Your task to perform on an android device: manage bookmarks in the chrome app Image 0: 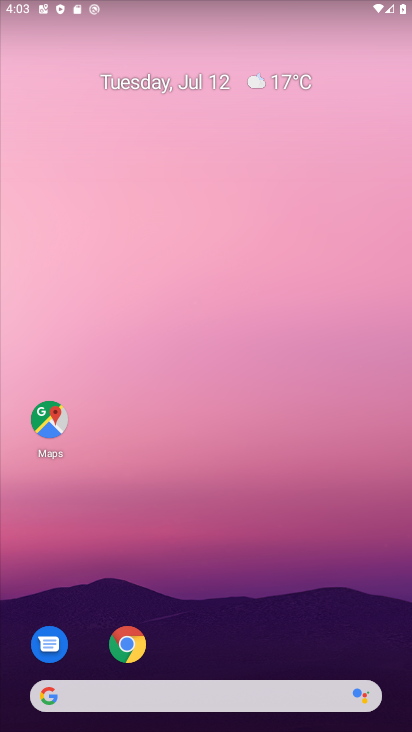
Step 0: drag from (261, 653) to (231, 55)
Your task to perform on an android device: manage bookmarks in the chrome app Image 1: 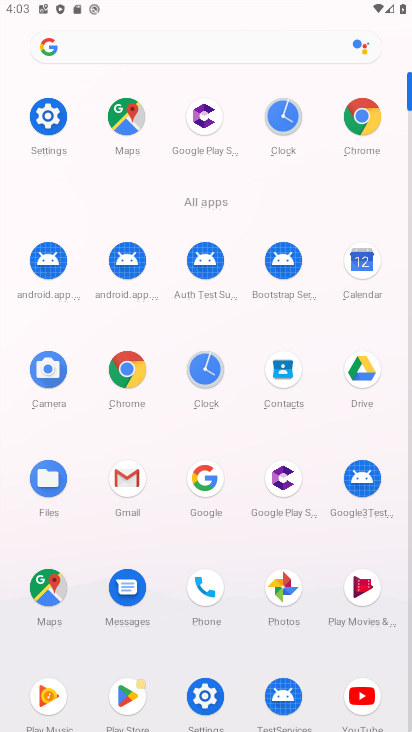
Step 1: click (371, 123)
Your task to perform on an android device: manage bookmarks in the chrome app Image 2: 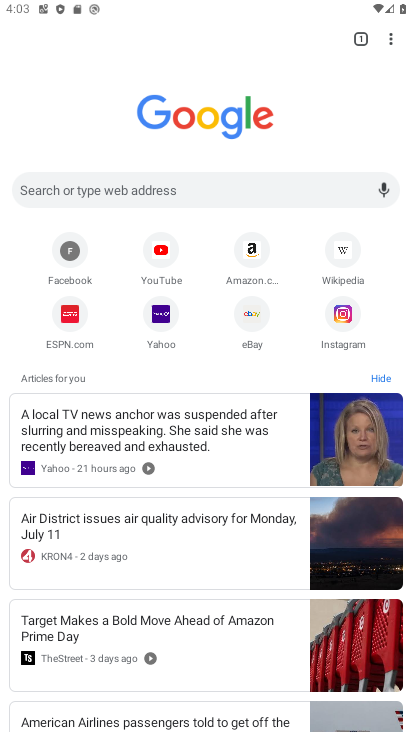
Step 2: click (387, 42)
Your task to perform on an android device: manage bookmarks in the chrome app Image 3: 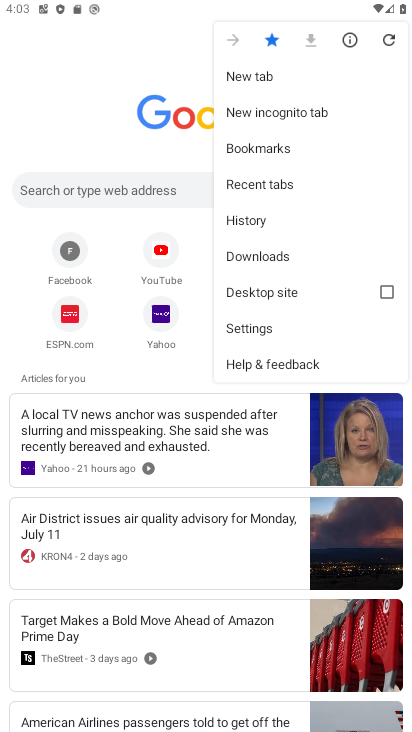
Step 3: click (352, 144)
Your task to perform on an android device: manage bookmarks in the chrome app Image 4: 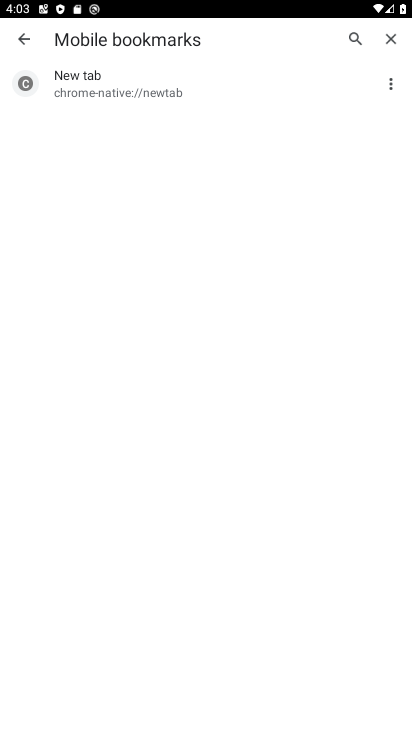
Step 4: click (251, 87)
Your task to perform on an android device: manage bookmarks in the chrome app Image 5: 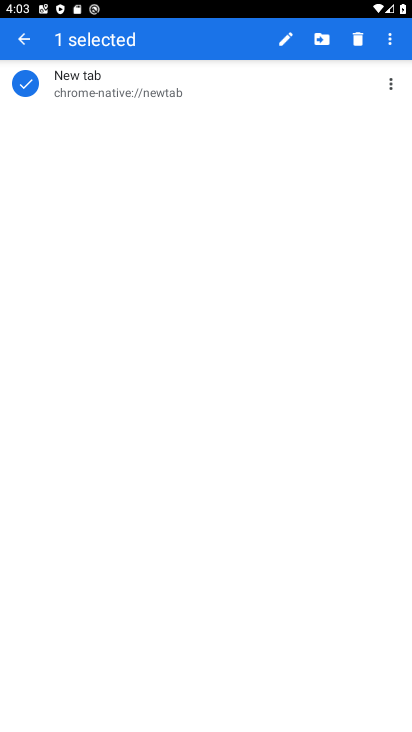
Step 5: click (320, 37)
Your task to perform on an android device: manage bookmarks in the chrome app Image 6: 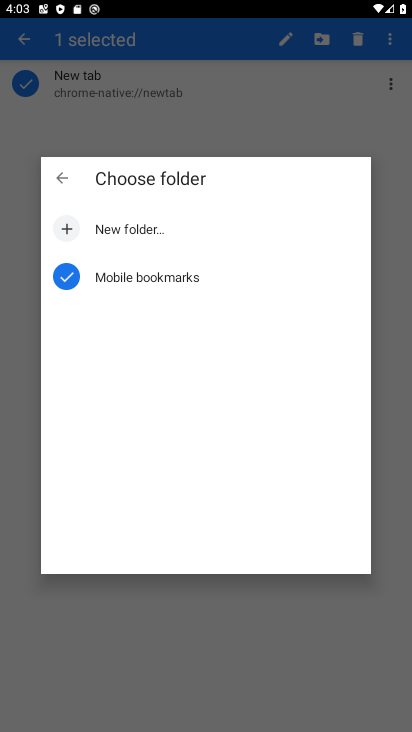
Step 6: click (246, 228)
Your task to perform on an android device: manage bookmarks in the chrome app Image 7: 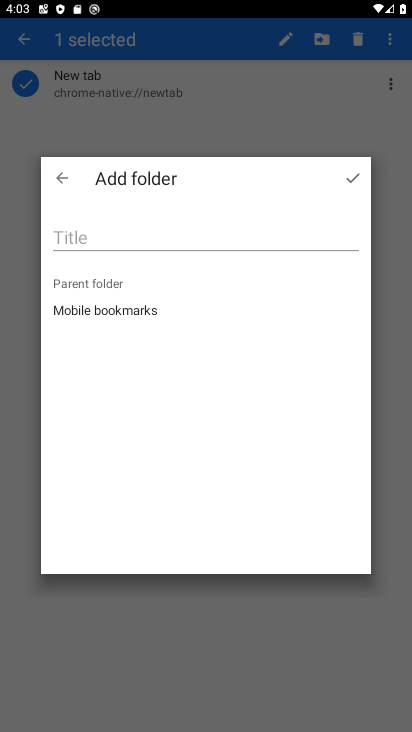
Step 7: click (246, 229)
Your task to perform on an android device: manage bookmarks in the chrome app Image 8: 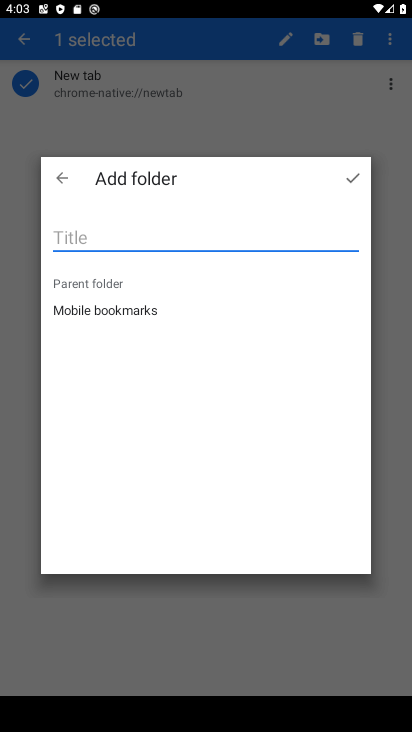
Step 8: type "nbnvjg"
Your task to perform on an android device: manage bookmarks in the chrome app Image 9: 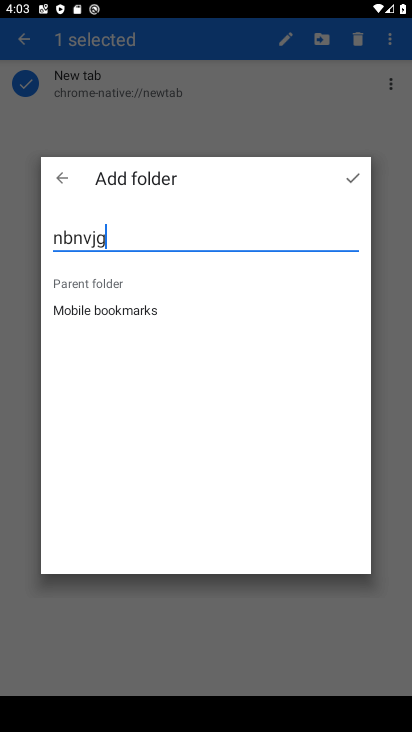
Step 9: click (357, 185)
Your task to perform on an android device: manage bookmarks in the chrome app Image 10: 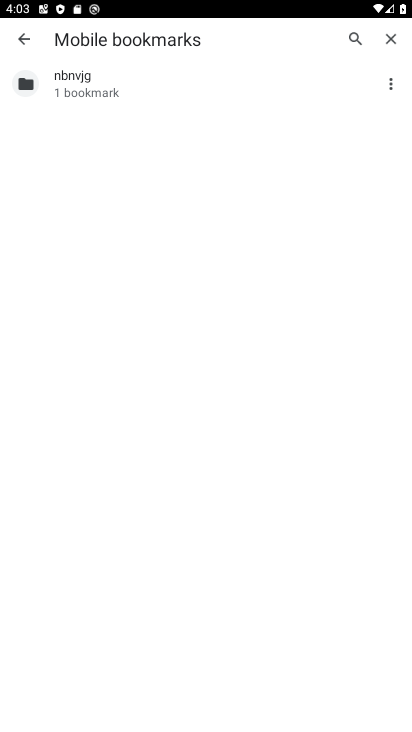
Step 10: task complete